Your task to perform on an android device: Go to Android settings Image 0: 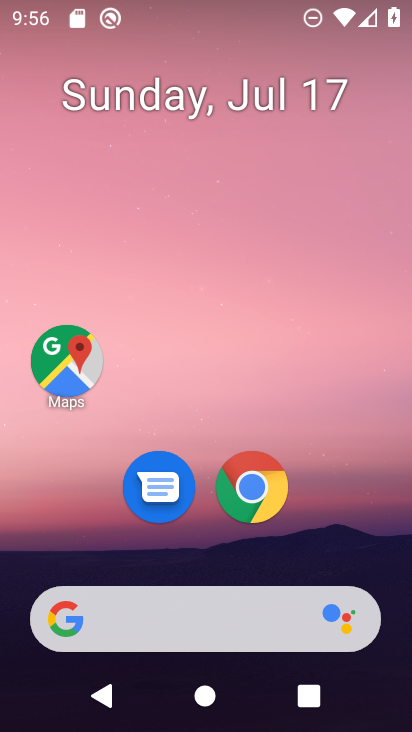
Step 0: drag from (338, 559) to (312, 56)
Your task to perform on an android device: Go to Android settings Image 1: 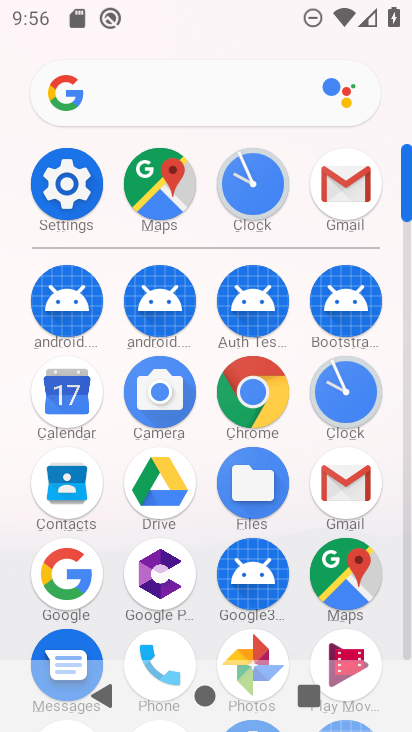
Step 1: click (53, 190)
Your task to perform on an android device: Go to Android settings Image 2: 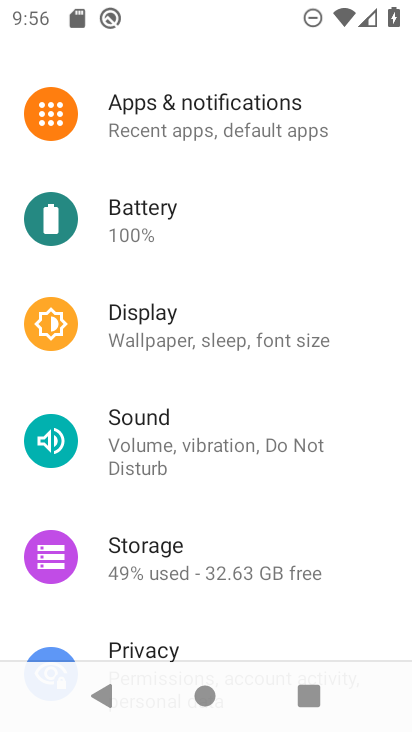
Step 2: task complete